Your task to perform on an android device: see sites visited before in the chrome app Image 0: 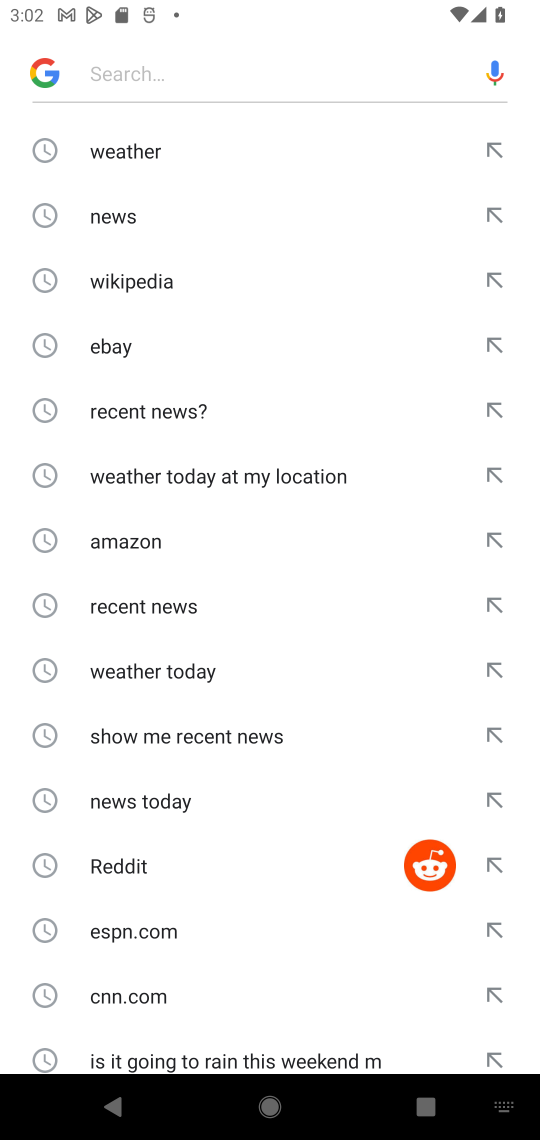
Step 0: press home button
Your task to perform on an android device: see sites visited before in the chrome app Image 1: 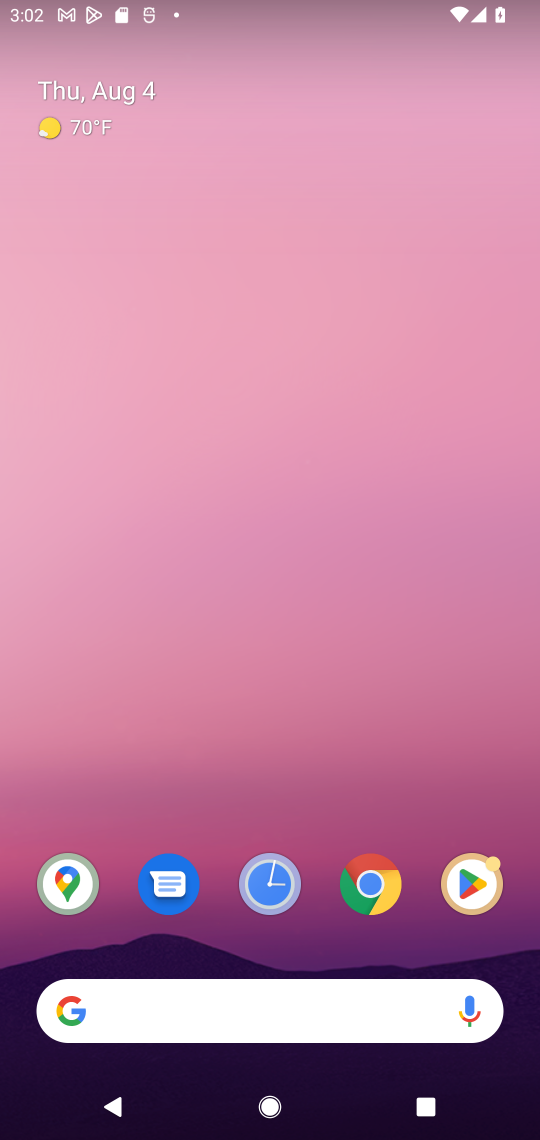
Step 1: click (368, 879)
Your task to perform on an android device: see sites visited before in the chrome app Image 2: 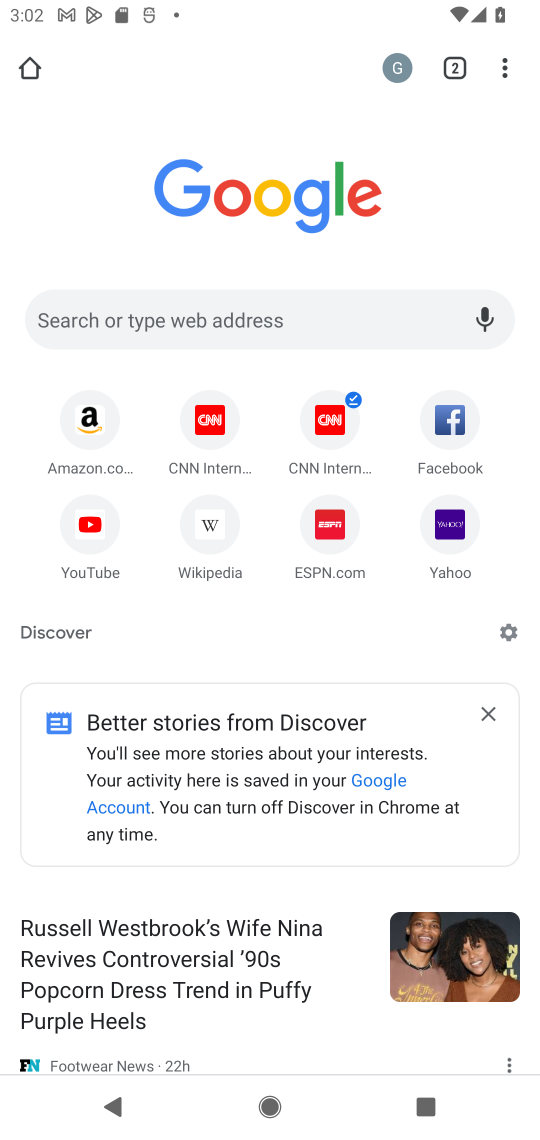
Step 2: click (516, 67)
Your task to perform on an android device: see sites visited before in the chrome app Image 3: 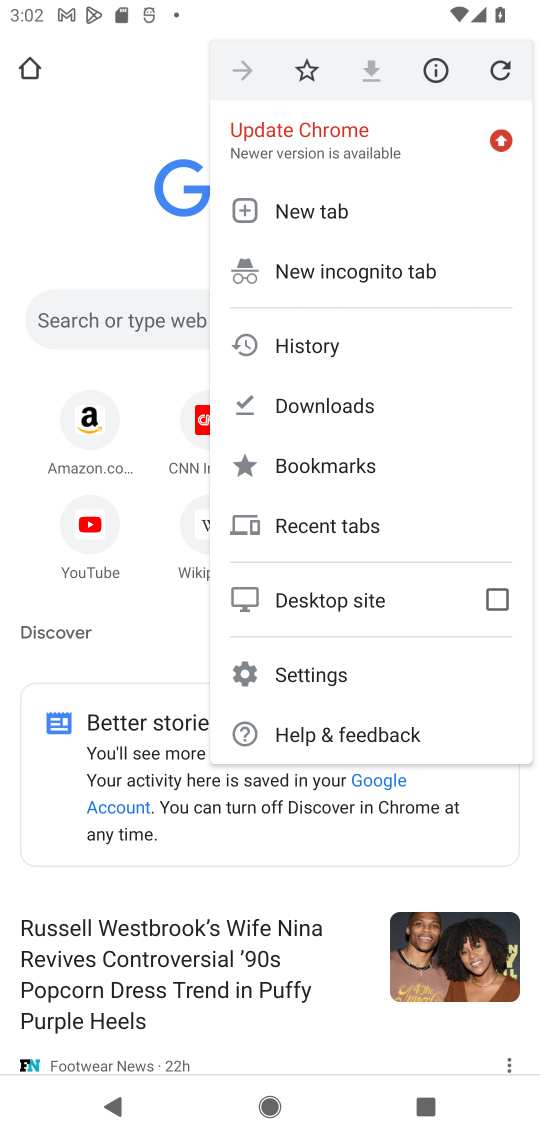
Step 3: click (324, 512)
Your task to perform on an android device: see sites visited before in the chrome app Image 4: 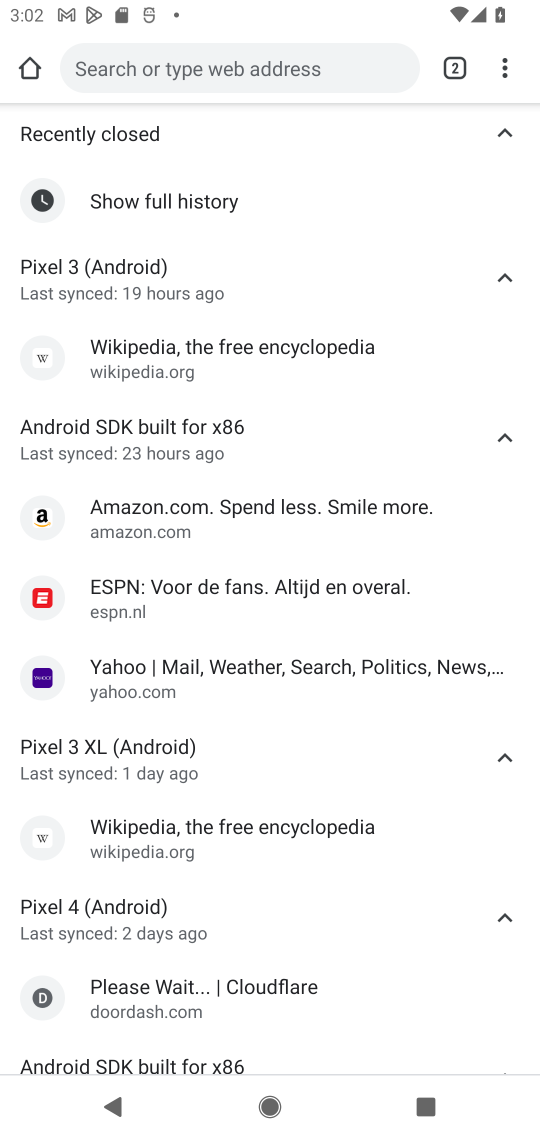
Step 4: task complete